Your task to perform on an android device: Open Google Chrome and click the shortcut for Amazon.com Image 0: 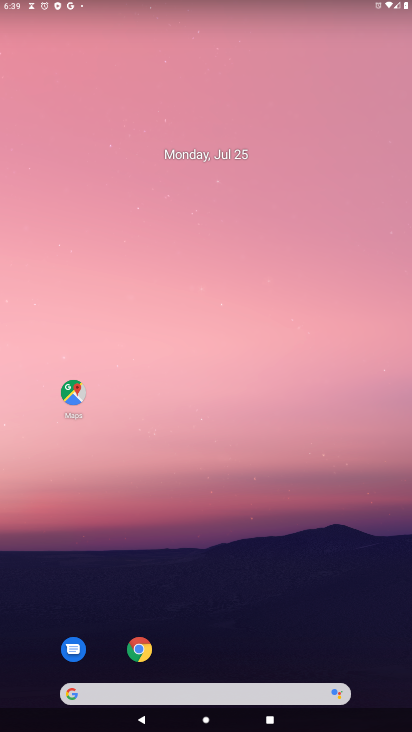
Step 0: drag from (309, 574) to (310, 9)
Your task to perform on an android device: Open Google Chrome and click the shortcut for Amazon.com Image 1: 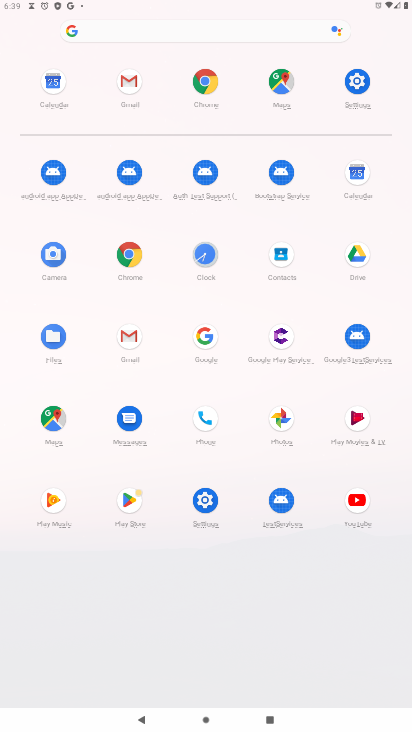
Step 1: click (131, 258)
Your task to perform on an android device: Open Google Chrome and click the shortcut for Amazon.com Image 2: 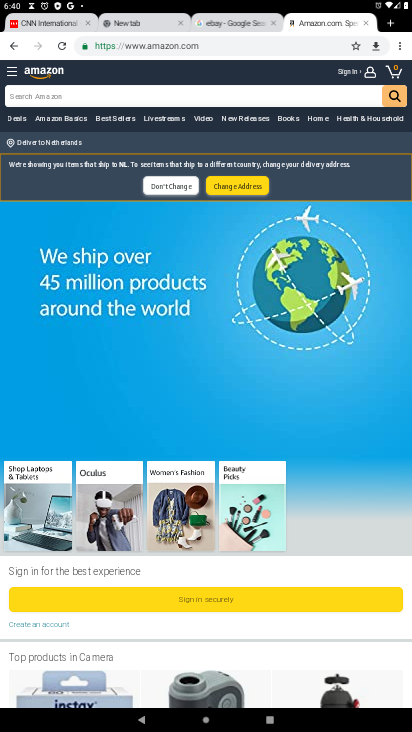
Step 2: drag from (396, 50) to (340, 265)
Your task to perform on an android device: Open Google Chrome and click the shortcut for Amazon.com Image 3: 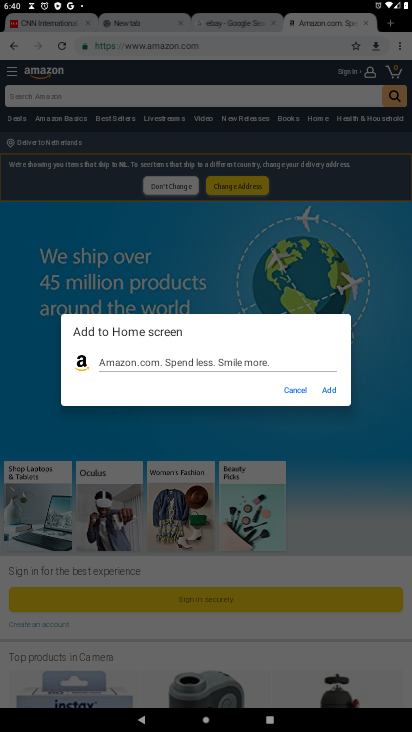
Step 3: click (339, 389)
Your task to perform on an android device: Open Google Chrome and click the shortcut for Amazon.com Image 4: 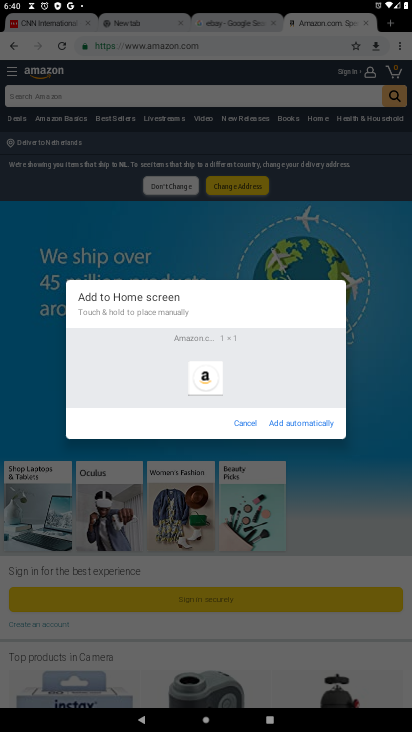
Step 4: click (295, 413)
Your task to perform on an android device: Open Google Chrome and click the shortcut for Amazon.com Image 5: 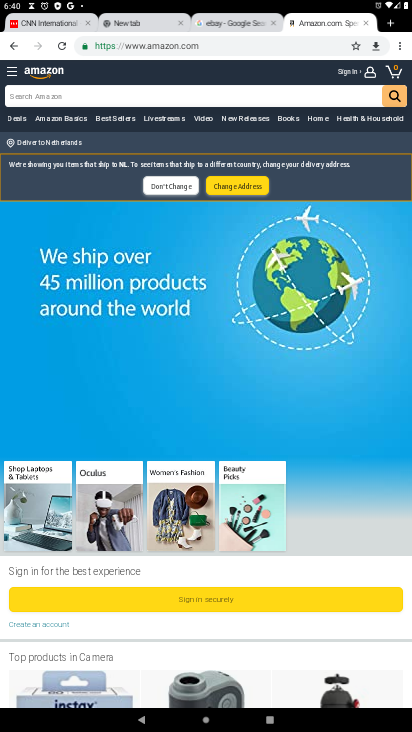
Step 5: task complete